Your task to perform on an android device: manage bookmarks in the chrome app Image 0: 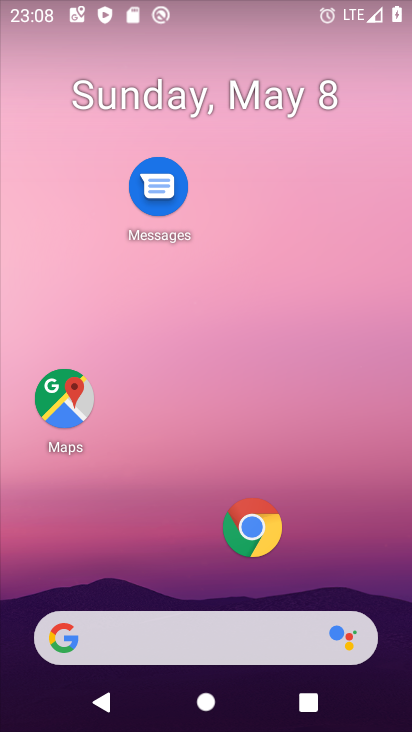
Step 0: click (253, 525)
Your task to perform on an android device: manage bookmarks in the chrome app Image 1: 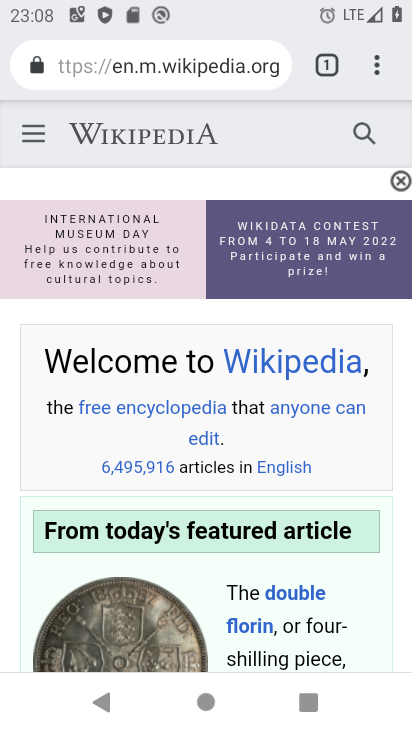
Step 1: click (367, 68)
Your task to perform on an android device: manage bookmarks in the chrome app Image 2: 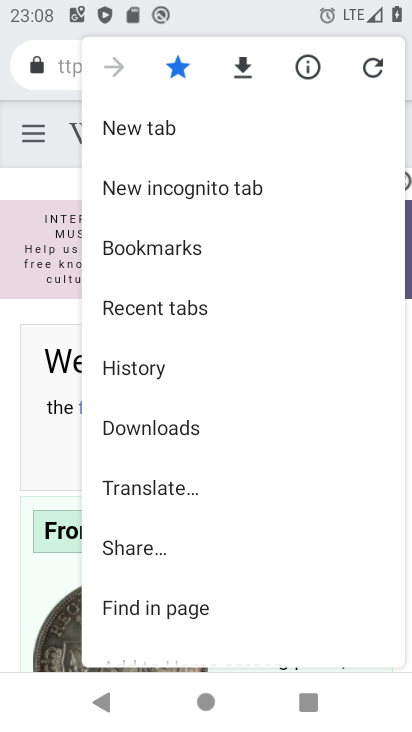
Step 2: click (162, 249)
Your task to perform on an android device: manage bookmarks in the chrome app Image 3: 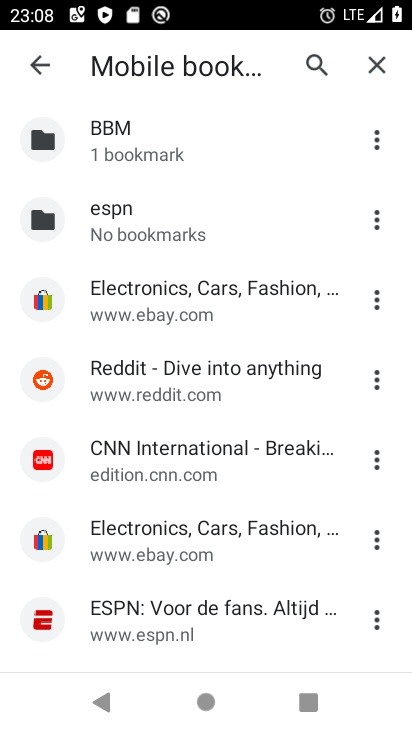
Step 3: drag from (231, 429) to (230, 172)
Your task to perform on an android device: manage bookmarks in the chrome app Image 4: 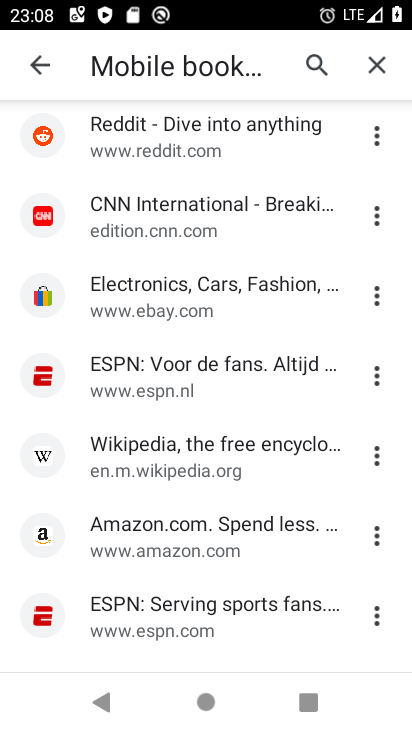
Step 4: click (366, 128)
Your task to perform on an android device: manage bookmarks in the chrome app Image 5: 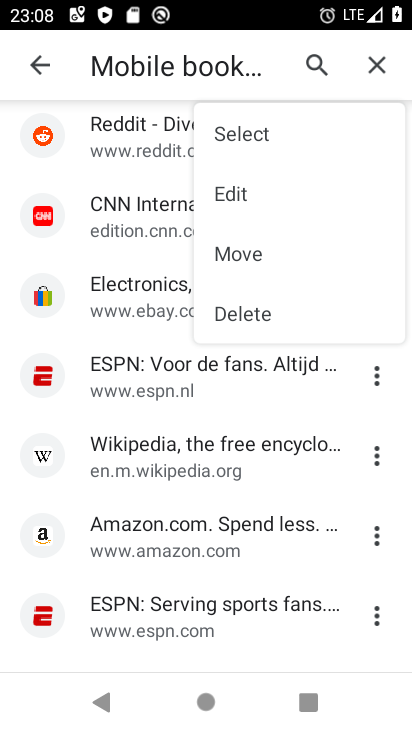
Step 5: click (256, 310)
Your task to perform on an android device: manage bookmarks in the chrome app Image 6: 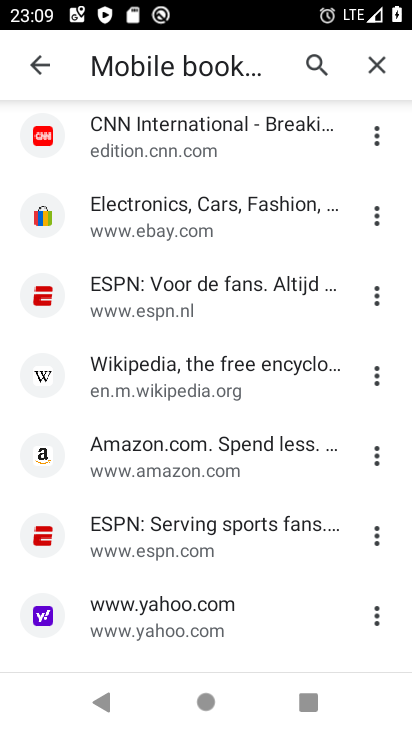
Step 6: task complete